Your task to perform on an android device: What's the weather going to be tomorrow? Image 0: 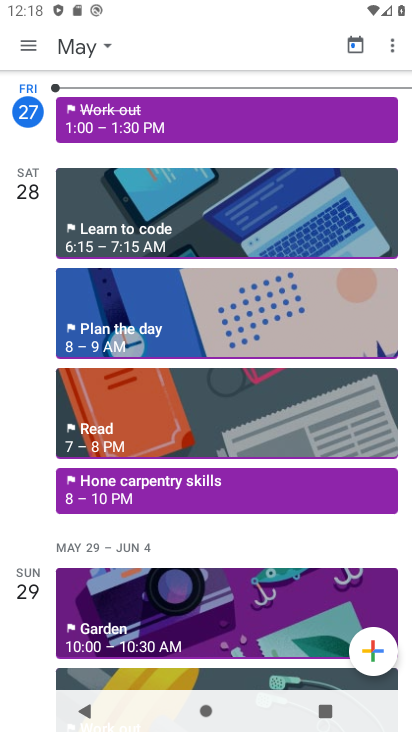
Step 0: press home button
Your task to perform on an android device: What's the weather going to be tomorrow? Image 1: 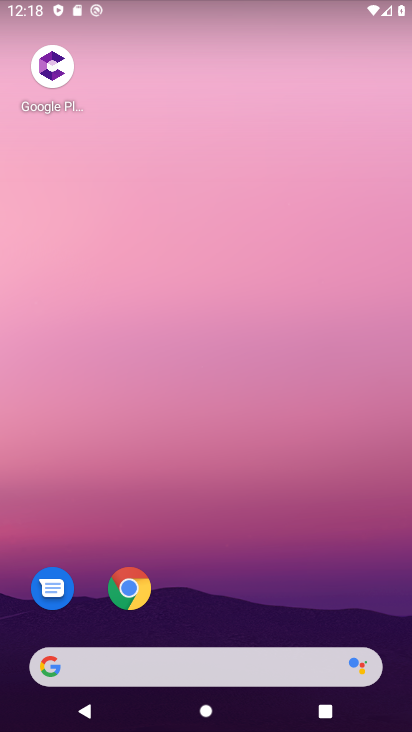
Step 1: click (143, 590)
Your task to perform on an android device: What's the weather going to be tomorrow? Image 2: 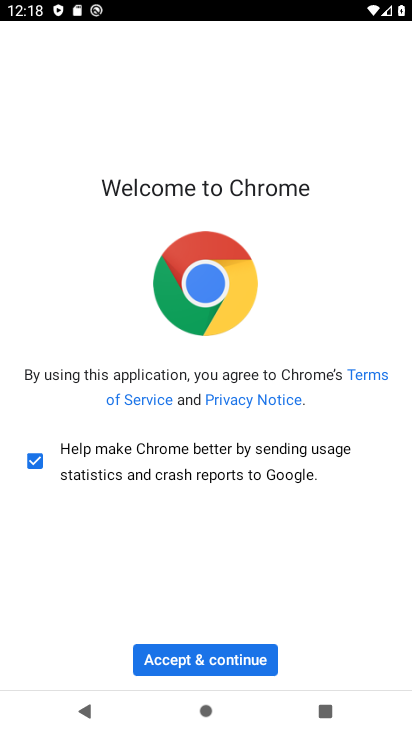
Step 2: click (187, 658)
Your task to perform on an android device: What's the weather going to be tomorrow? Image 3: 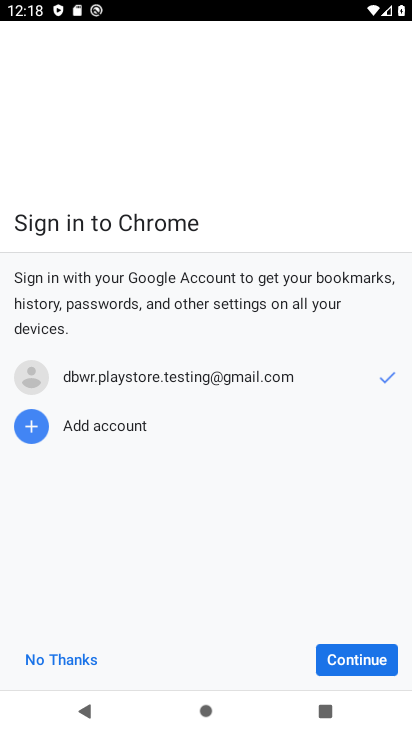
Step 3: click (358, 663)
Your task to perform on an android device: What's the weather going to be tomorrow? Image 4: 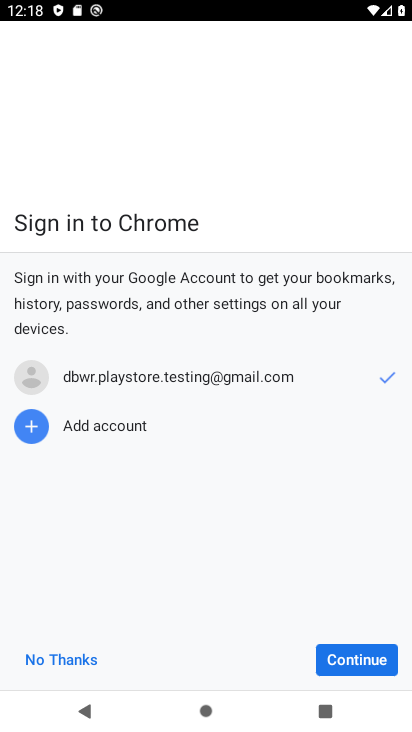
Step 4: click (358, 663)
Your task to perform on an android device: What's the weather going to be tomorrow? Image 5: 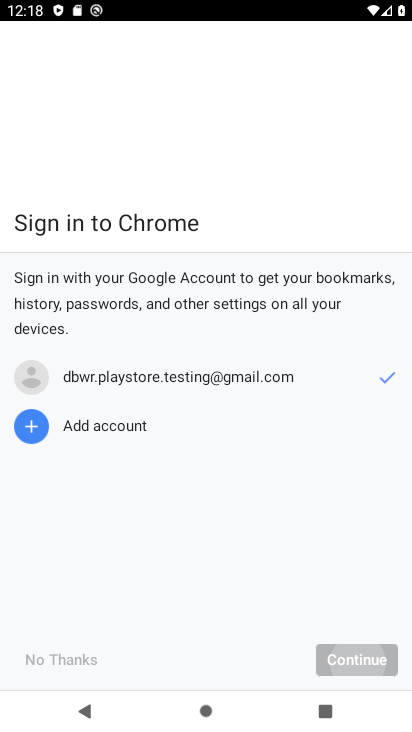
Step 5: click (358, 663)
Your task to perform on an android device: What's the weather going to be tomorrow? Image 6: 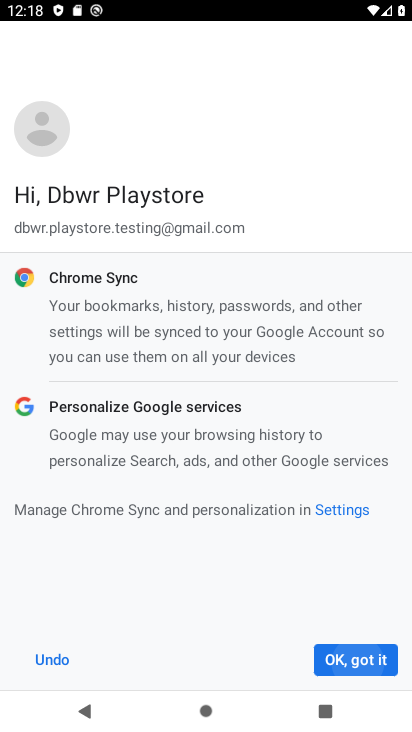
Step 6: click (358, 663)
Your task to perform on an android device: What's the weather going to be tomorrow? Image 7: 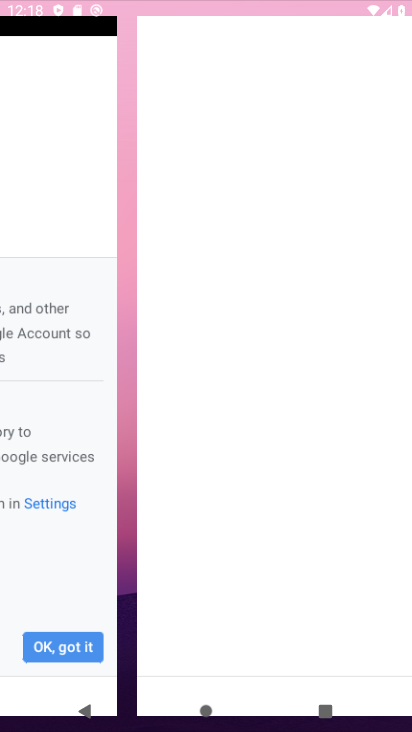
Step 7: click (358, 663)
Your task to perform on an android device: What's the weather going to be tomorrow? Image 8: 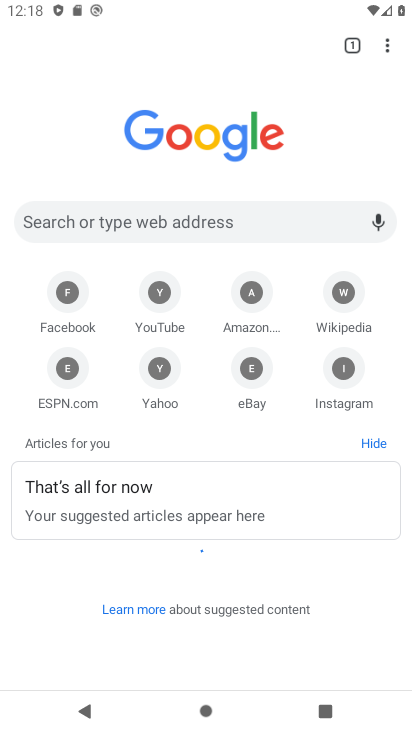
Step 8: click (129, 220)
Your task to perform on an android device: What's the weather going to be tomorrow? Image 9: 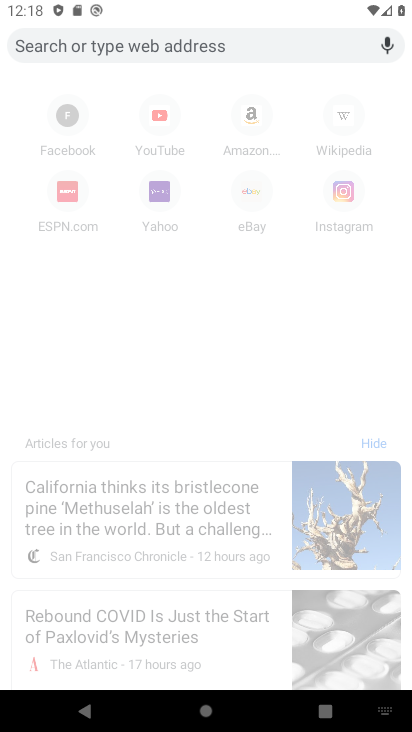
Step 9: type "What's the weather going to be tomorrow?"
Your task to perform on an android device: What's the weather going to be tomorrow? Image 10: 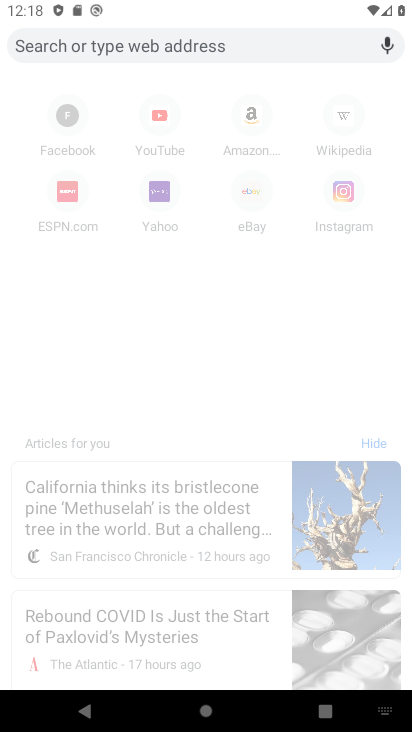
Step 10: click (155, 115)
Your task to perform on an android device: What's the weather going to be tomorrow? Image 11: 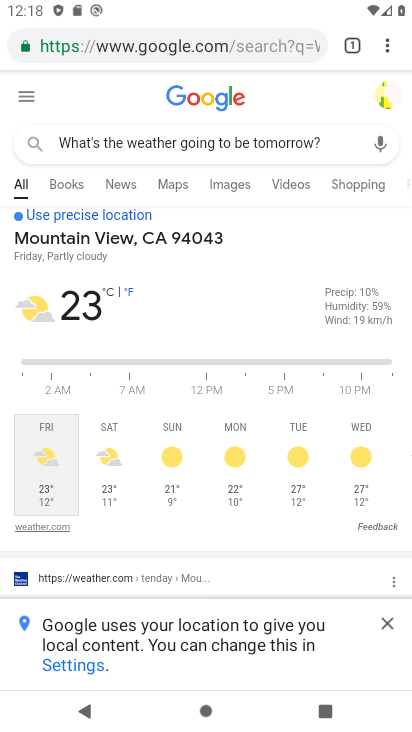
Step 11: task complete